Your task to perform on an android device: turn off location Image 0: 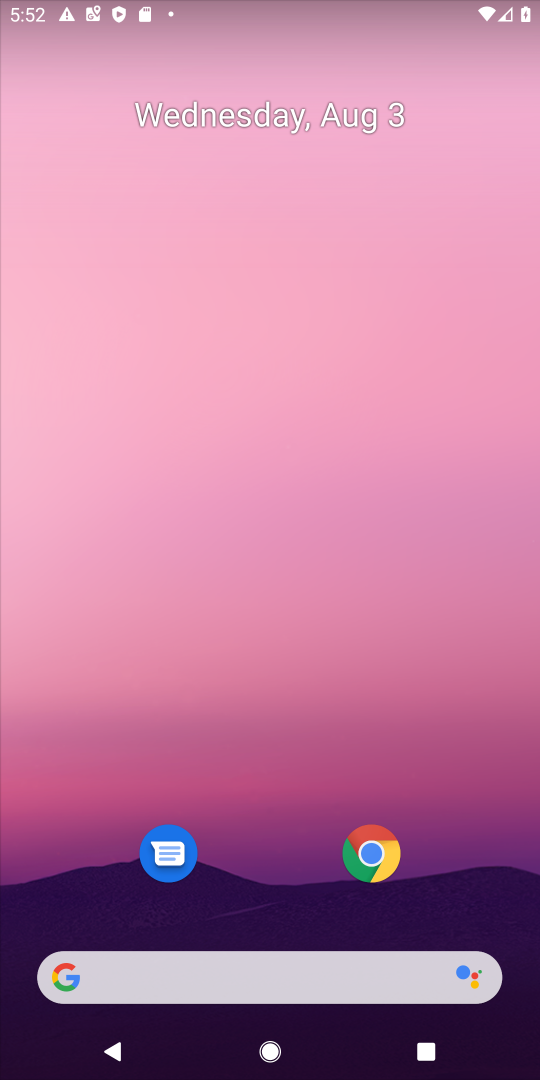
Step 0: press home button
Your task to perform on an android device: turn off location Image 1: 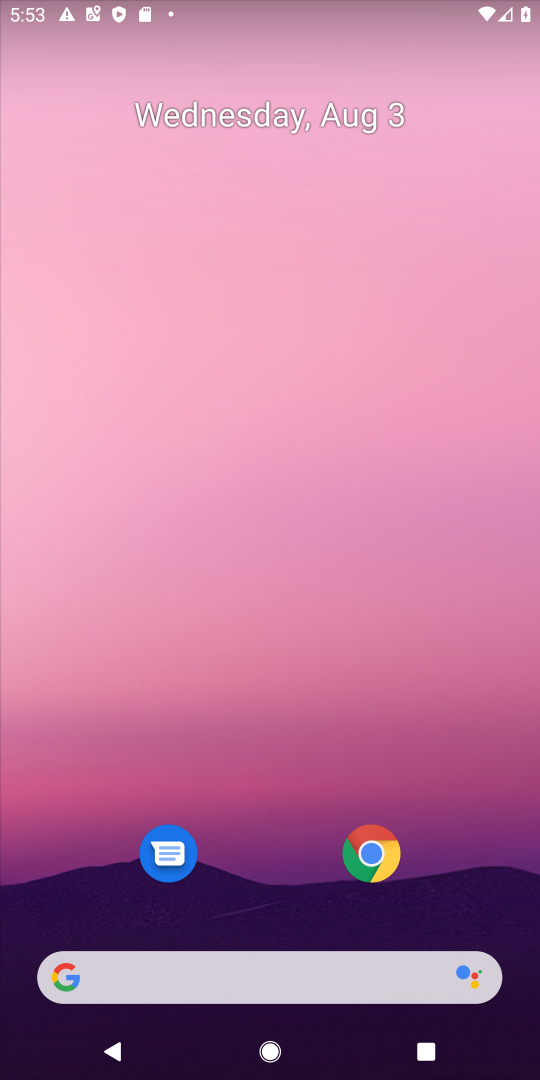
Step 1: drag from (461, 868) to (392, 234)
Your task to perform on an android device: turn off location Image 2: 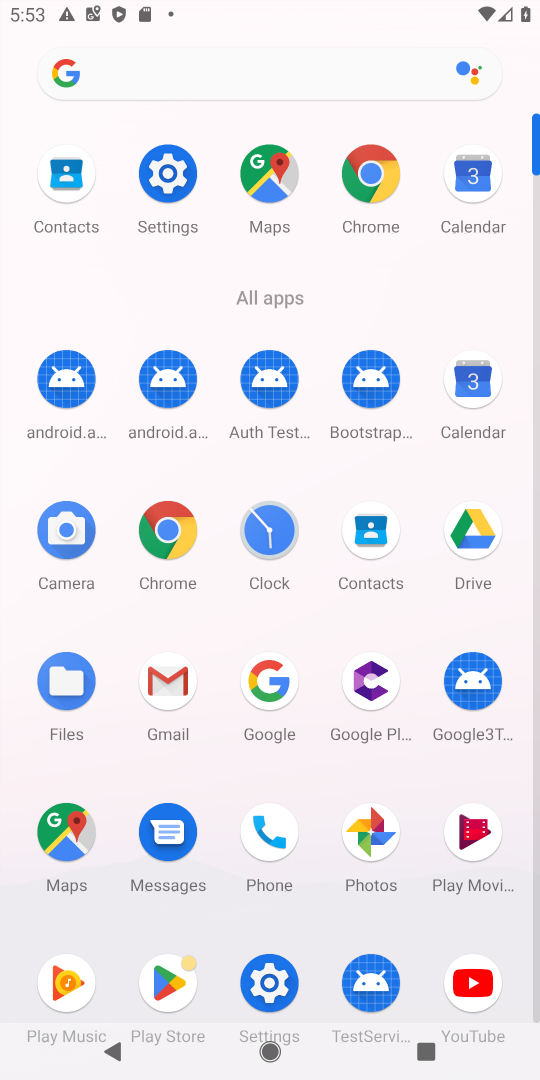
Step 2: click (282, 979)
Your task to perform on an android device: turn off location Image 3: 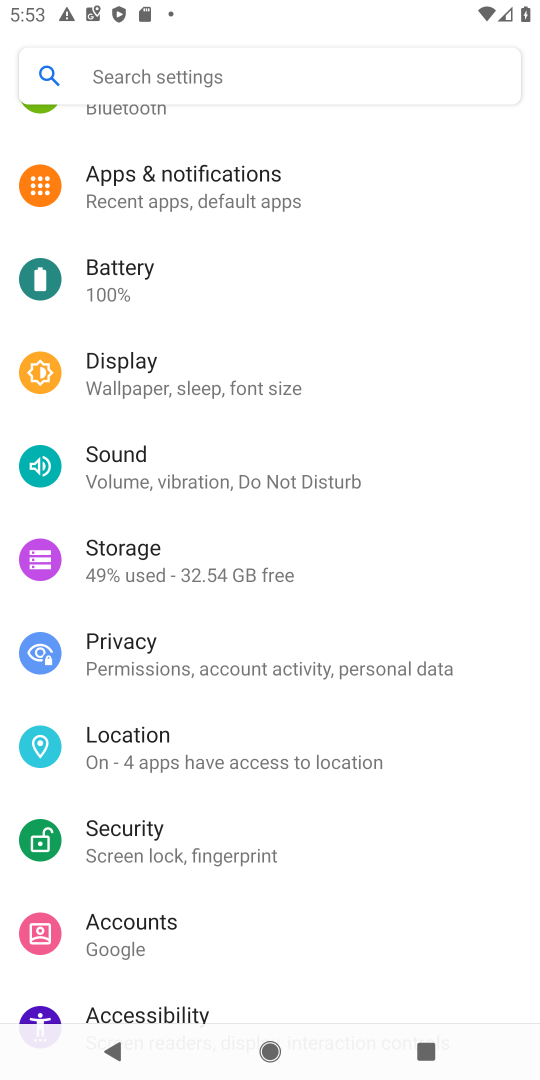
Step 3: click (249, 735)
Your task to perform on an android device: turn off location Image 4: 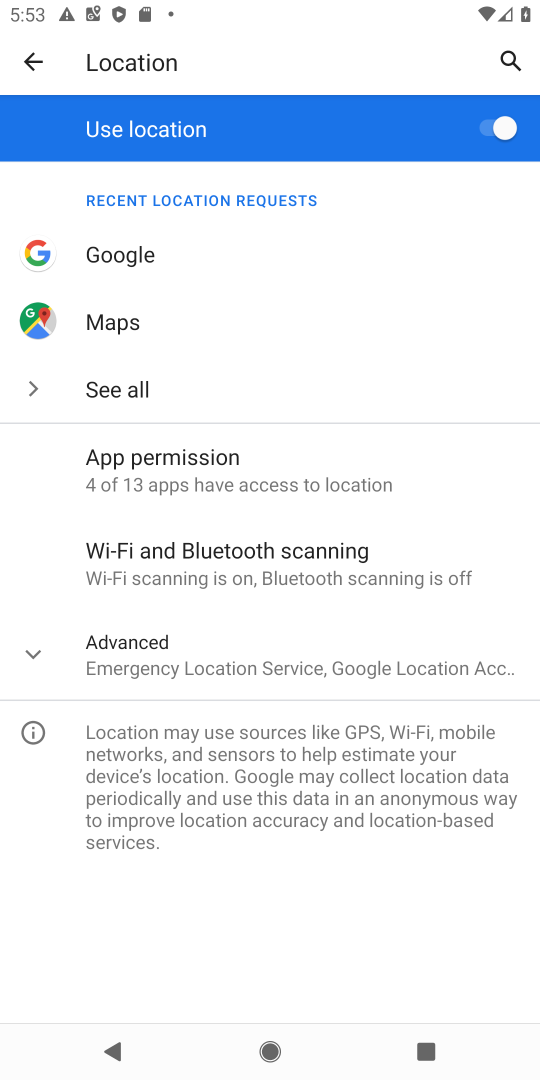
Step 4: click (496, 126)
Your task to perform on an android device: turn off location Image 5: 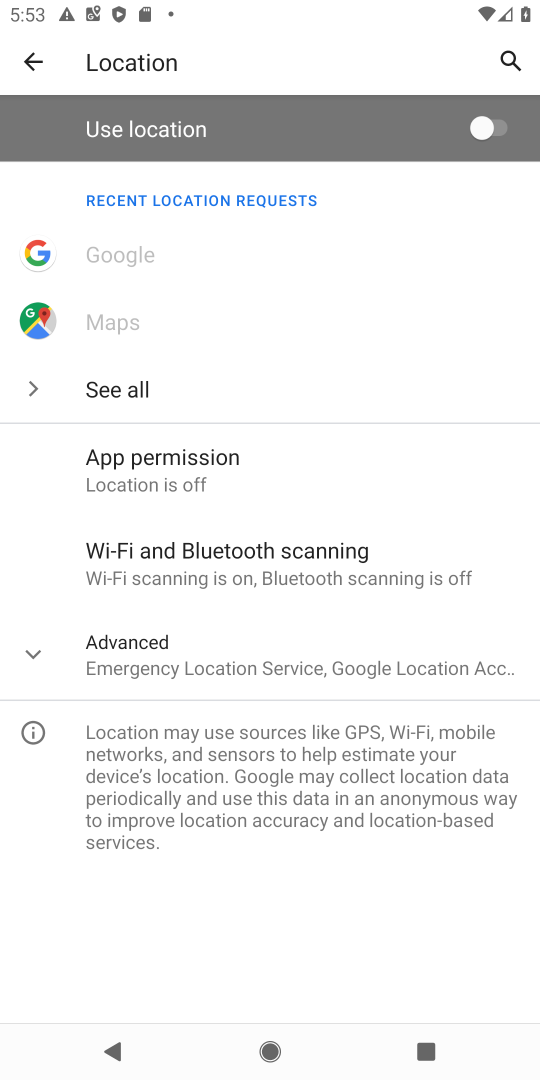
Step 5: task complete